Your task to perform on an android device: check google app version Image 0: 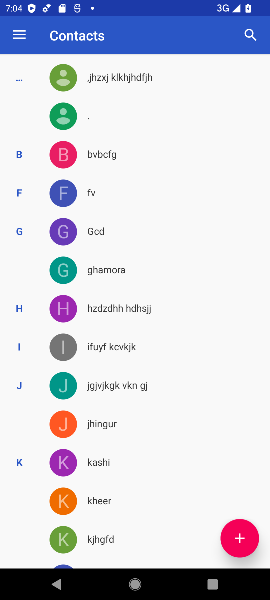
Step 0: press home button
Your task to perform on an android device: check google app version Image 1: 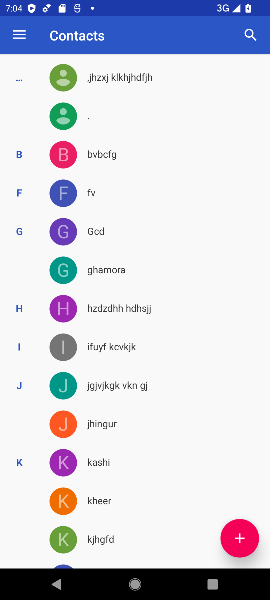
Step 1: press home button
Your task to perform on an android device: check google app version Image 2: 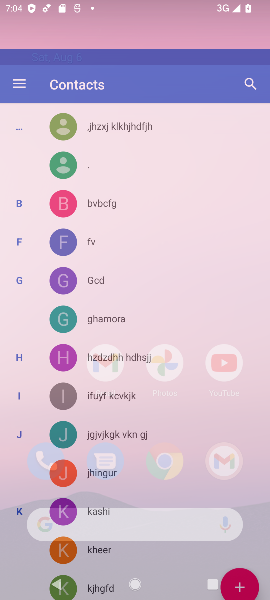
Step 2: press home button
Your task to perform on an android device: check google app version Image 3: 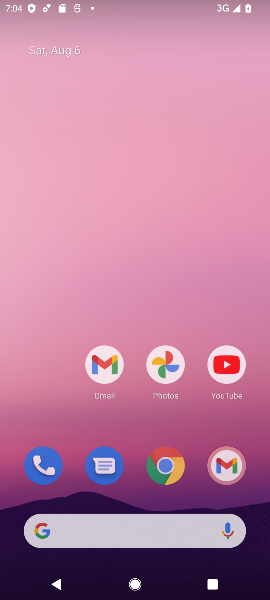
Step 3: press home button
Your task to perform on an android device: check google app version Image 4: 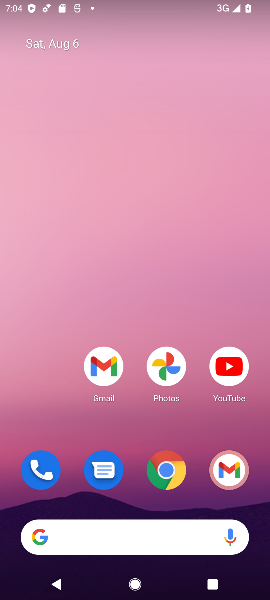
Step 4: drag from (212, 437) to (224, 69)
Your task to perform on an android device: check google app version Image 5: 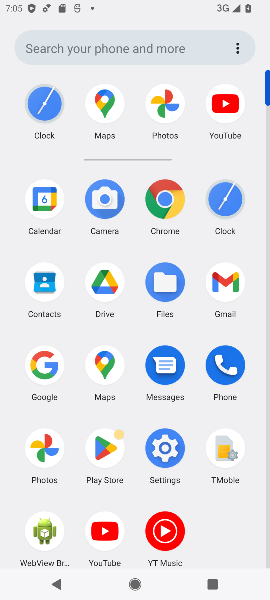
Step 5: click (54, 379)
Your task to perform on an android device: check google app version Image 6: 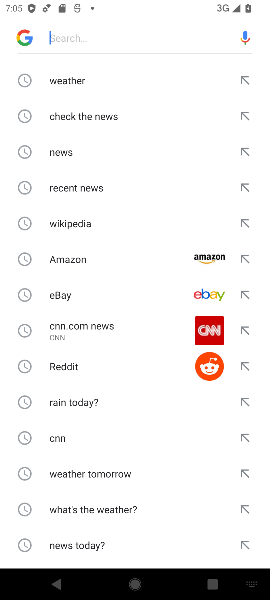
Step 6: press back button
Your task to perform on an android device: check google app version Image 7: 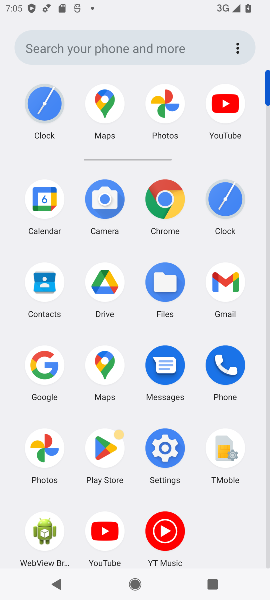
Step 7: click (50, 363)
Your task to perform on an android device: check google app version Image 8: 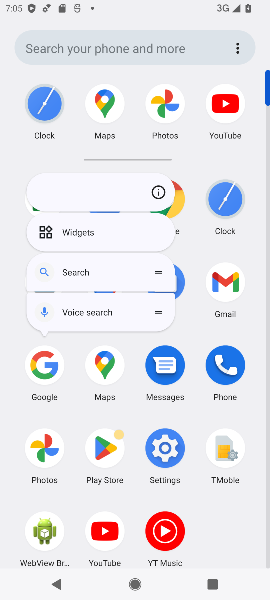
Step 8: click (157, 189)
Your task to perform on an android device: check google app version Image 9: 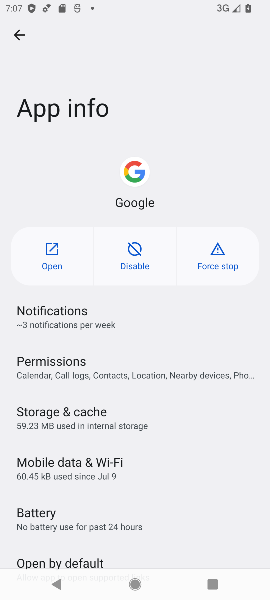
Step 9: task complete